Your task to perform on an android device: Open CNN.com Image 0: 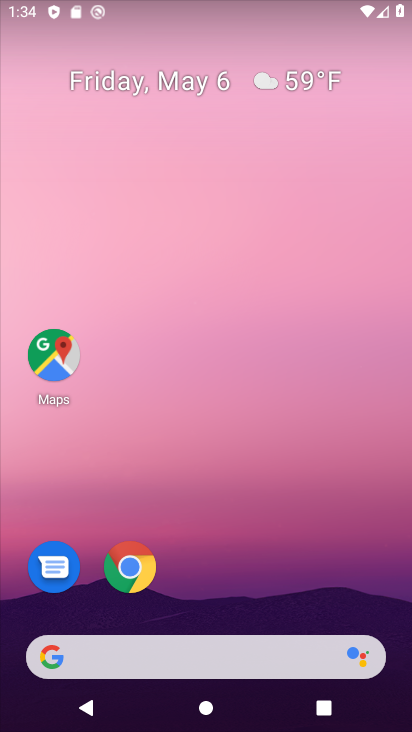
Step 0: click (129, 565)
Your task to perform on an android device: Open CNN.com Image 1: 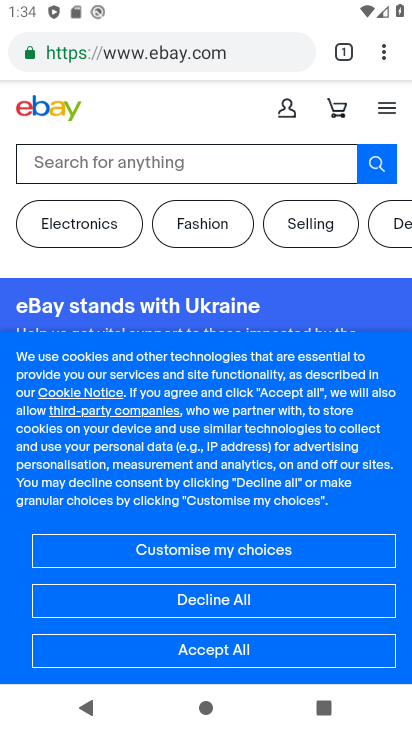
Step 1: click (233, 49)
Your task to perform on an android device: Open CNN.com Image 2: 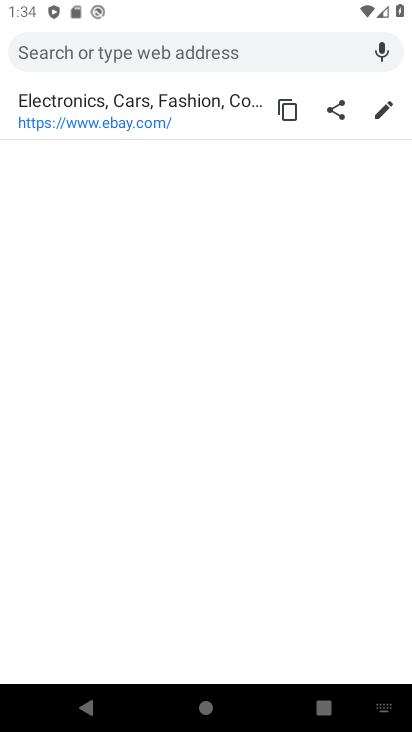
Step 2: type "CNN.com"
Your task to perform on an android device: Open CNN.com Image 3: 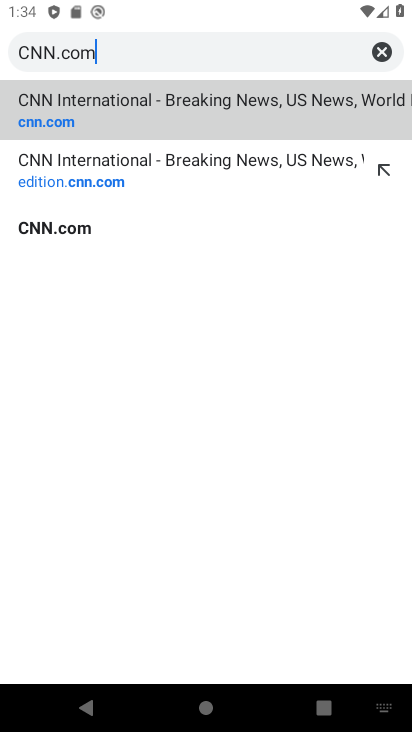
Step 3: type ""
Your task to perform on an android device: Open CNN.com Image 4: 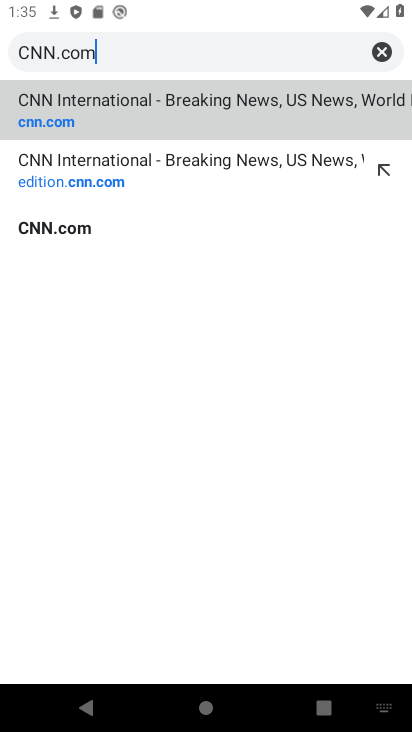
Step 4: click (81, 229)
Your task to perform on an android device: Open CNN.com Image 5: 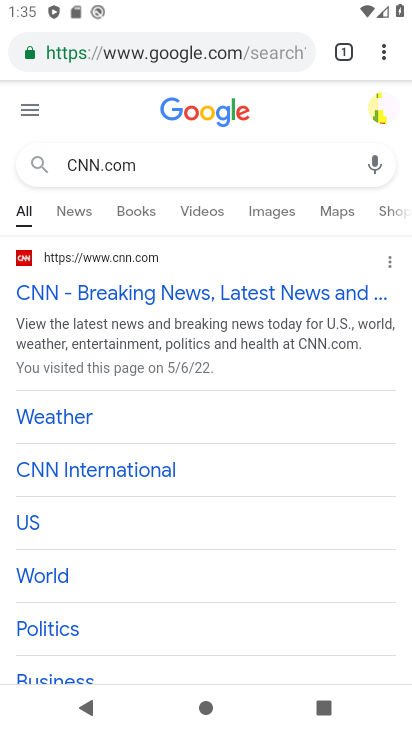
Step 5: click (60, 293)
Your task to perform on an android device: Open CNN.com Image 6: 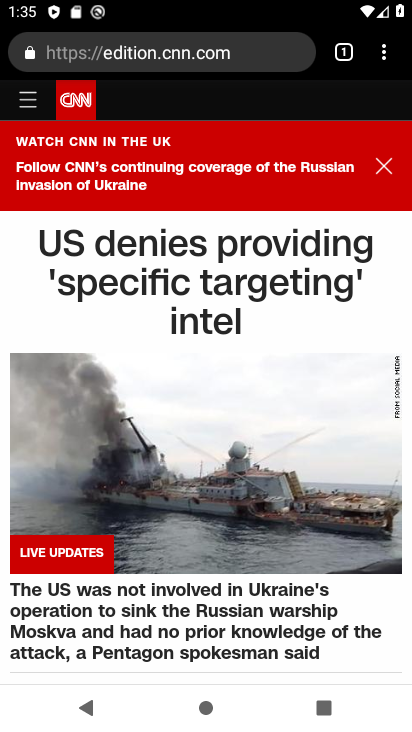
Step 6: task complete